Your task to perform on an android device: What is the news today? Image 0: 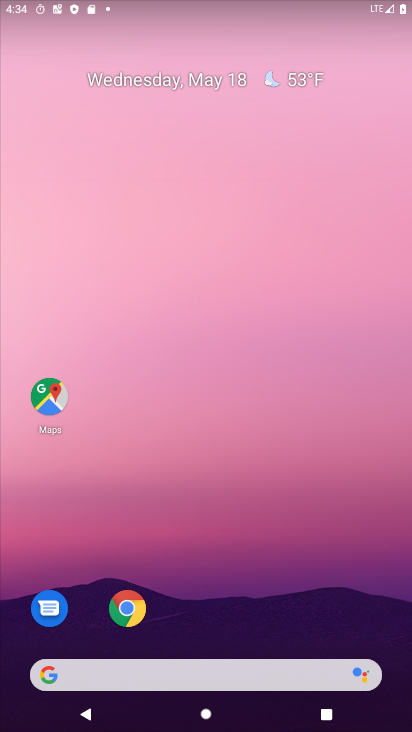
Step 0: drag from (245, 678) to (214, 8)
Your task to perform on an android device: What is the news today? Image 1: 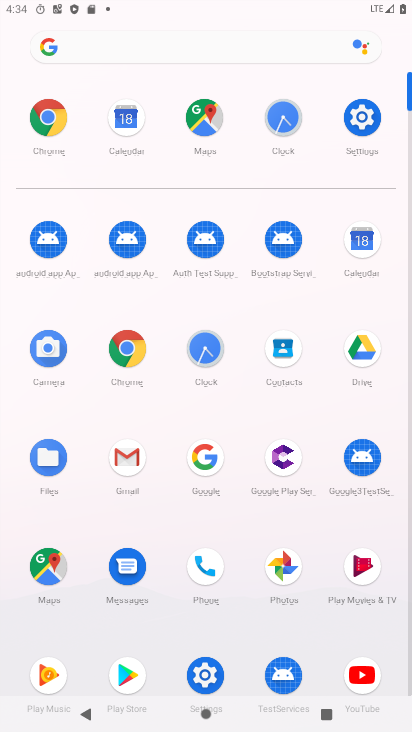
Step 1: click (130, 355)
Your task to perform on an android device: What is the news today? Image 2: 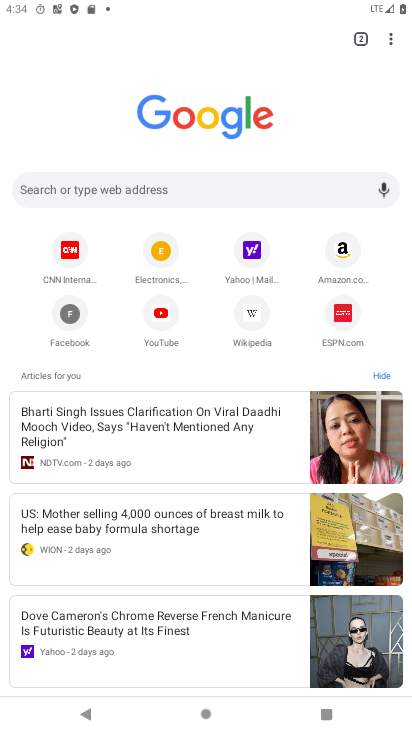
Step 2: click (168, 177)
Your task to perform on an android device: What is the news today? Image 3: 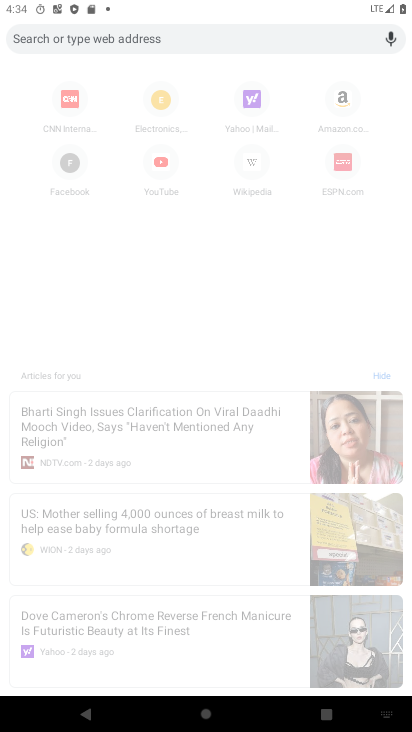
Step 3: type "news today"
Your task to perform on an android device: What is the news today? Image 4: 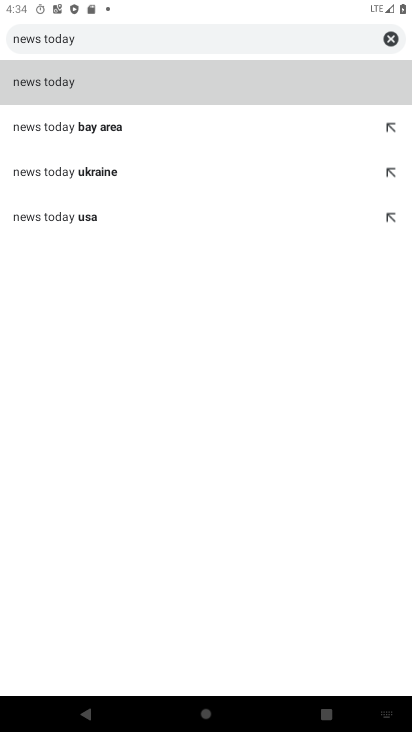
Step 4: click (301, 81)
Your task to perform on an android device: What is the news today? Image 5: 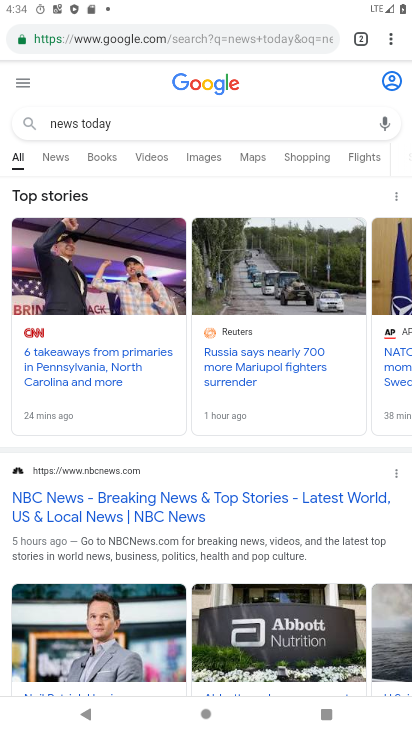
Step 5: task complete